Your task to perform on an android device: turn pop-ups off in chrome Image 0: 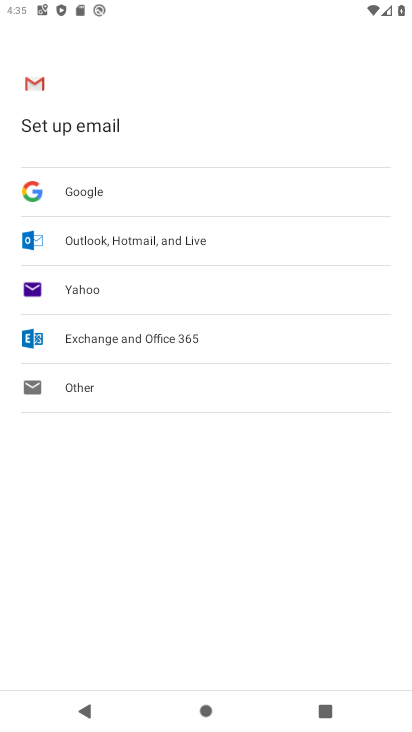
Step 0: press home button
Your task to perform on an android device: turn pop-ups off in chrome Image 1: 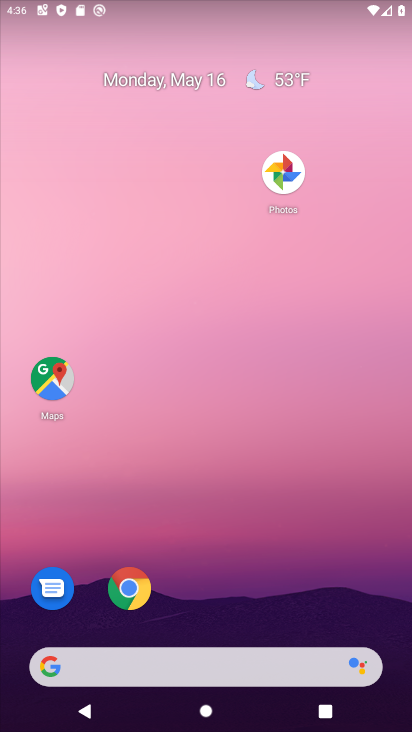
Step 1: click (131, 592)
Your task to perform on an android device: turn pop-ups off in chrome Image 2: 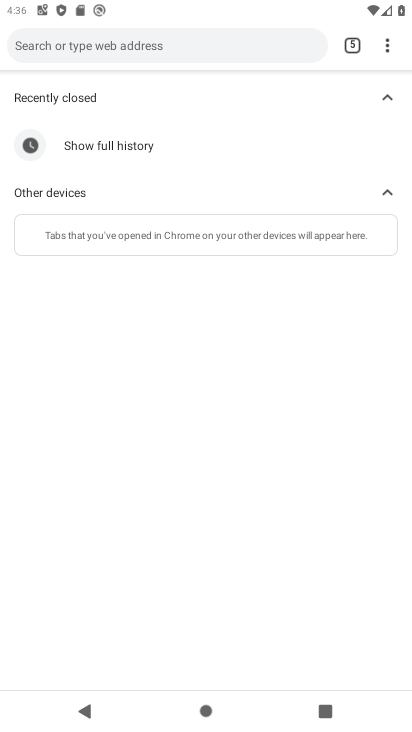
Step 2: click (397, 46)
Your task to perform on an android device: turn pop-ups off in chrome Image 3: 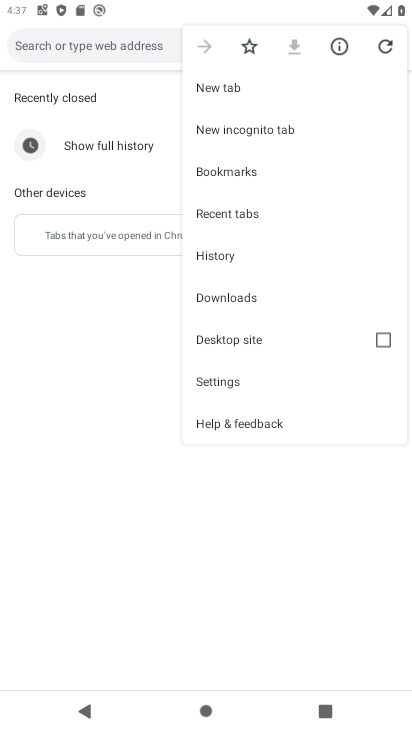
Step 3: click (268, 378)
Your task to perform on an android device: turn pop-ups off in chrome Image 4: 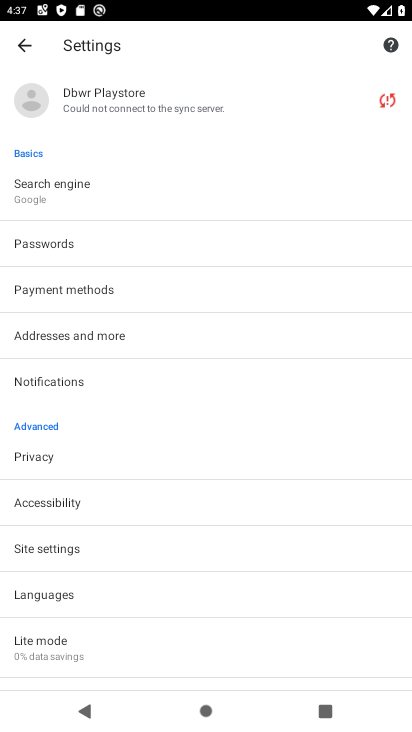
Step 4: click (122, 559)
Your task to perform on an android device: turn pop-ups off in chrome Image 5: 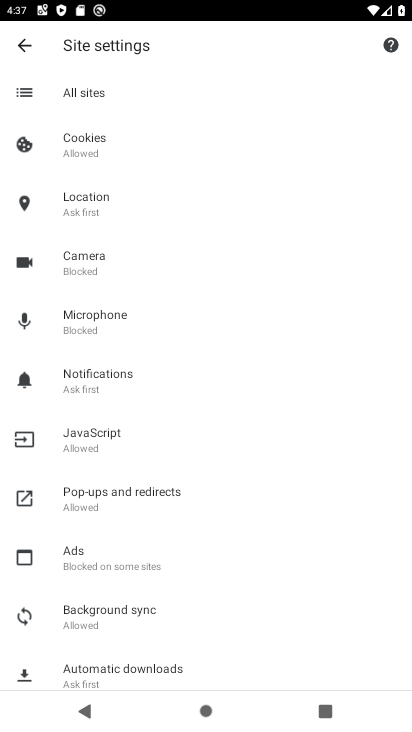
Step 5: click (101, 510)
Your task to perform on an android device: turn pop-ups off in chrome Image 6: 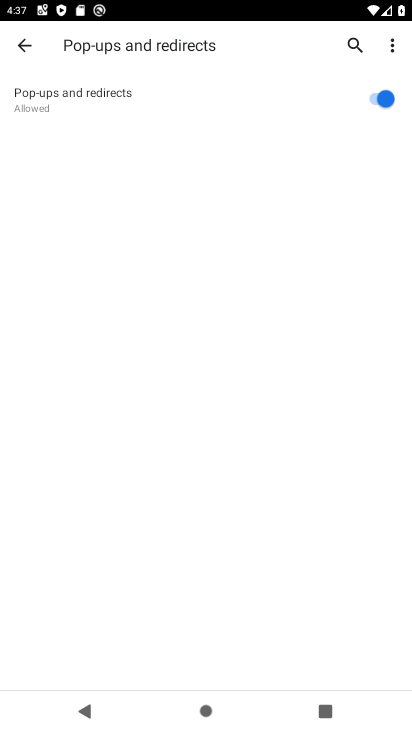
Step 6: click (390, 95)
Your task to perform on an android device: turn pop-ups off in chrome Image 7: 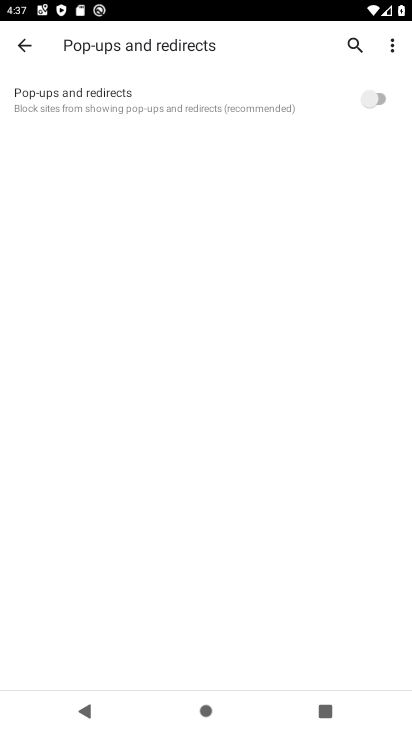
Step 7: task complete